Your task to perform on an android device: Search for sushi restaurants on Maps Image 0: 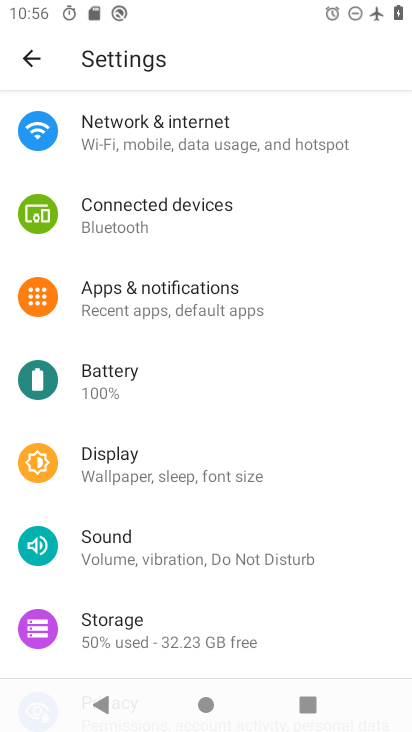
Step 0: press home button
Your task to perform on an android device: Search for sushi restaurants on Maps Image 1: 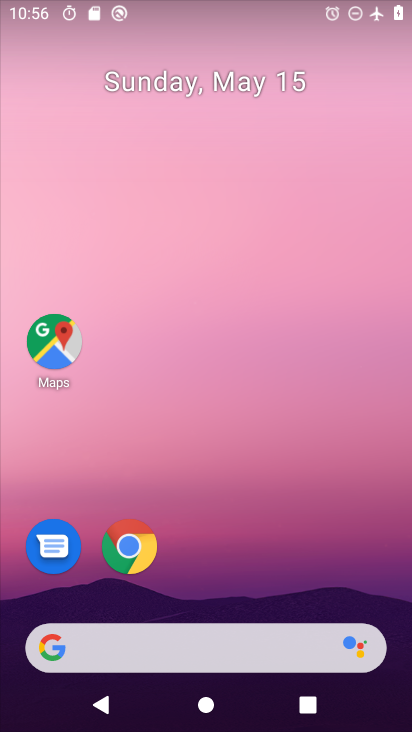
Step 1: click (62, 342)
Your task to perform on an android device: Search for sushi restaurants on Maps Image 2: 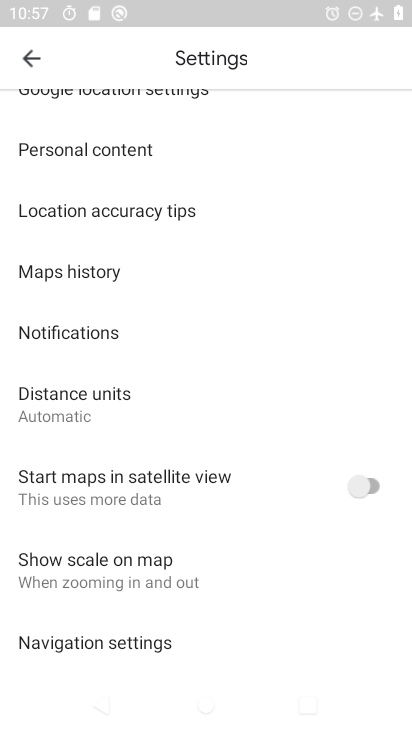
Step 2: click (25, 46)
Your task to perform on an android device: Search for sushi restaurants on Maps Image 3: 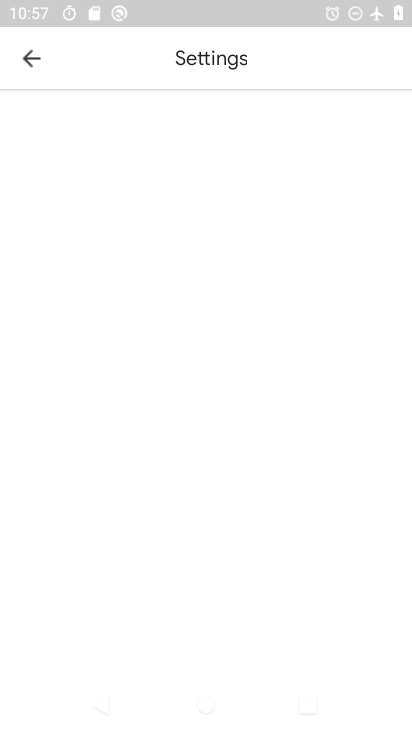
Step 3: click (28, 51)
Your task to perform on an android device: Search for sushi restaurants on Maps Image 4: 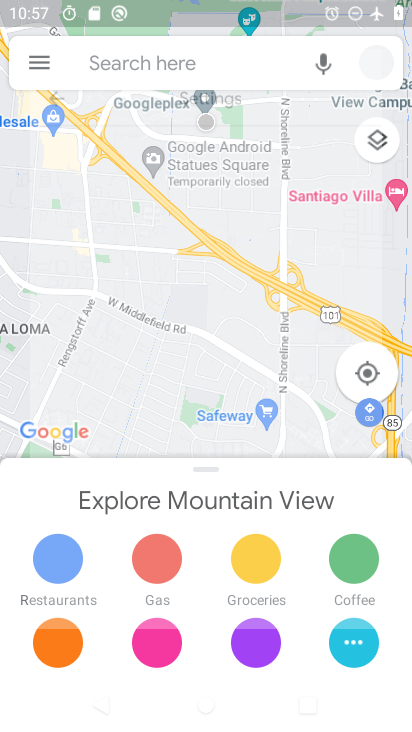
Step 4: click (38, 56)
Your task to perform on an android device: Search for sushi restaurants on Maps Image 5: 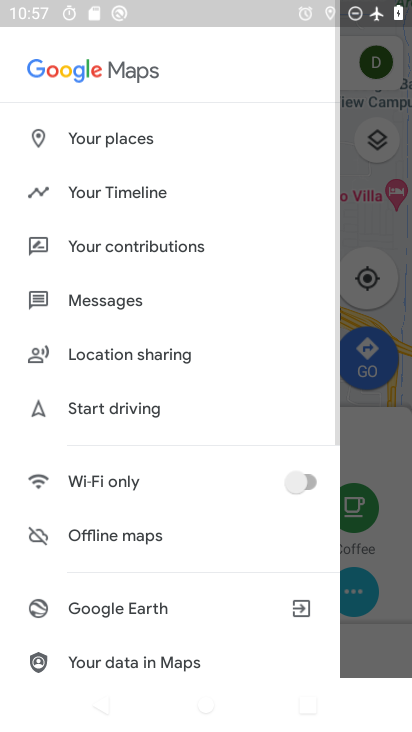
Step 5: click (355, 121)
Your task to perform on an android device: Search for sushi restaurants on Maps Image 6: 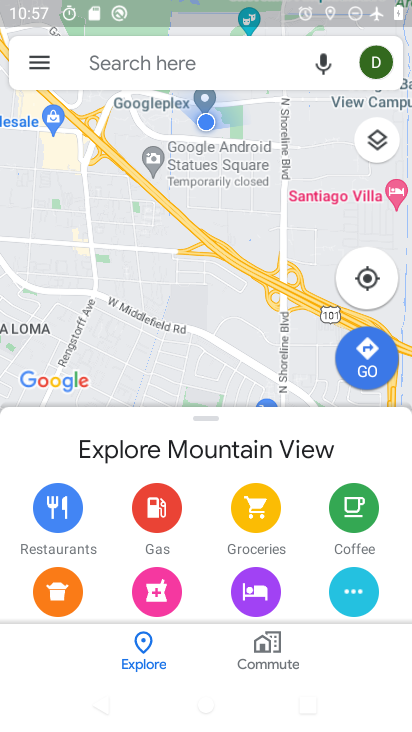
Step 6: click (213, 60)
Your task to perform on an android device: Search for sushi restaurants on Maps Image 7: 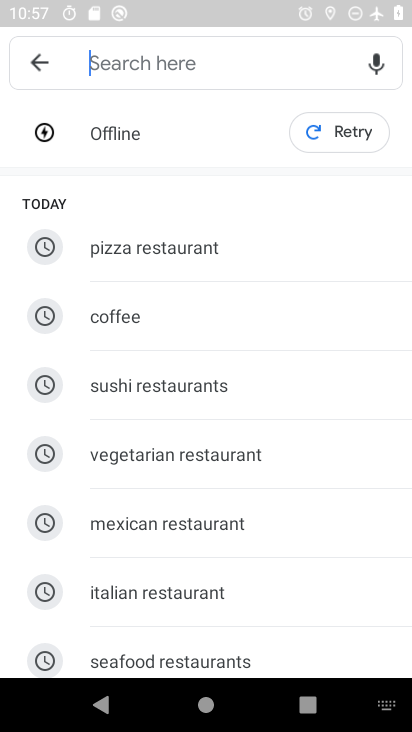
Step 7: type "sushi restaurants"
Your task to perform on an android device: Search for sushi restaurants on Maps Image 8: 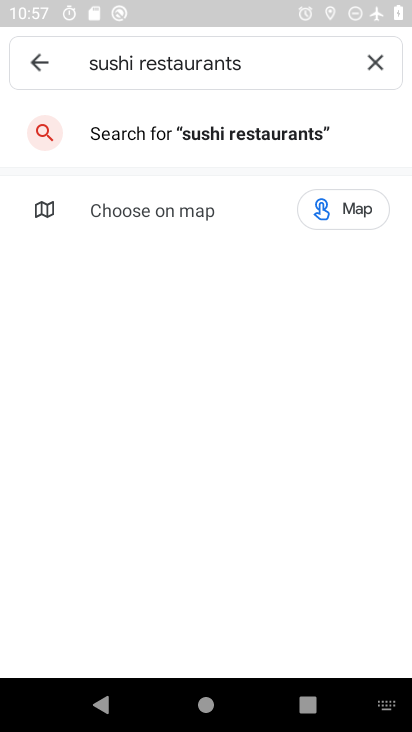
Step 8: click (213, 130)
Your task to perform on an android device: Search for sushi restaurants on Maps Image 9: 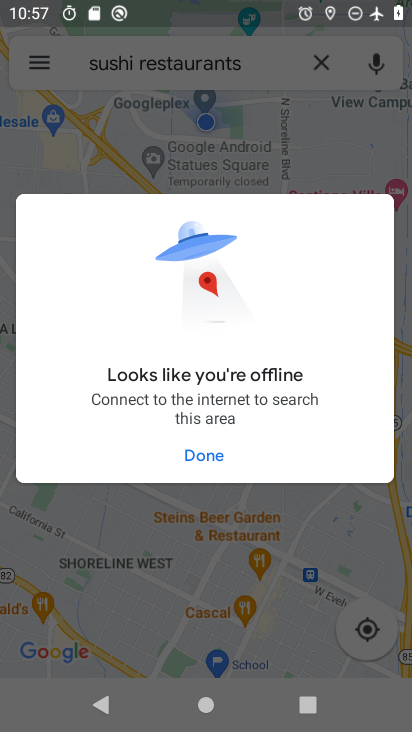
Step 9: task complete